Your task to perform on an android device: check out phone information Image 0: 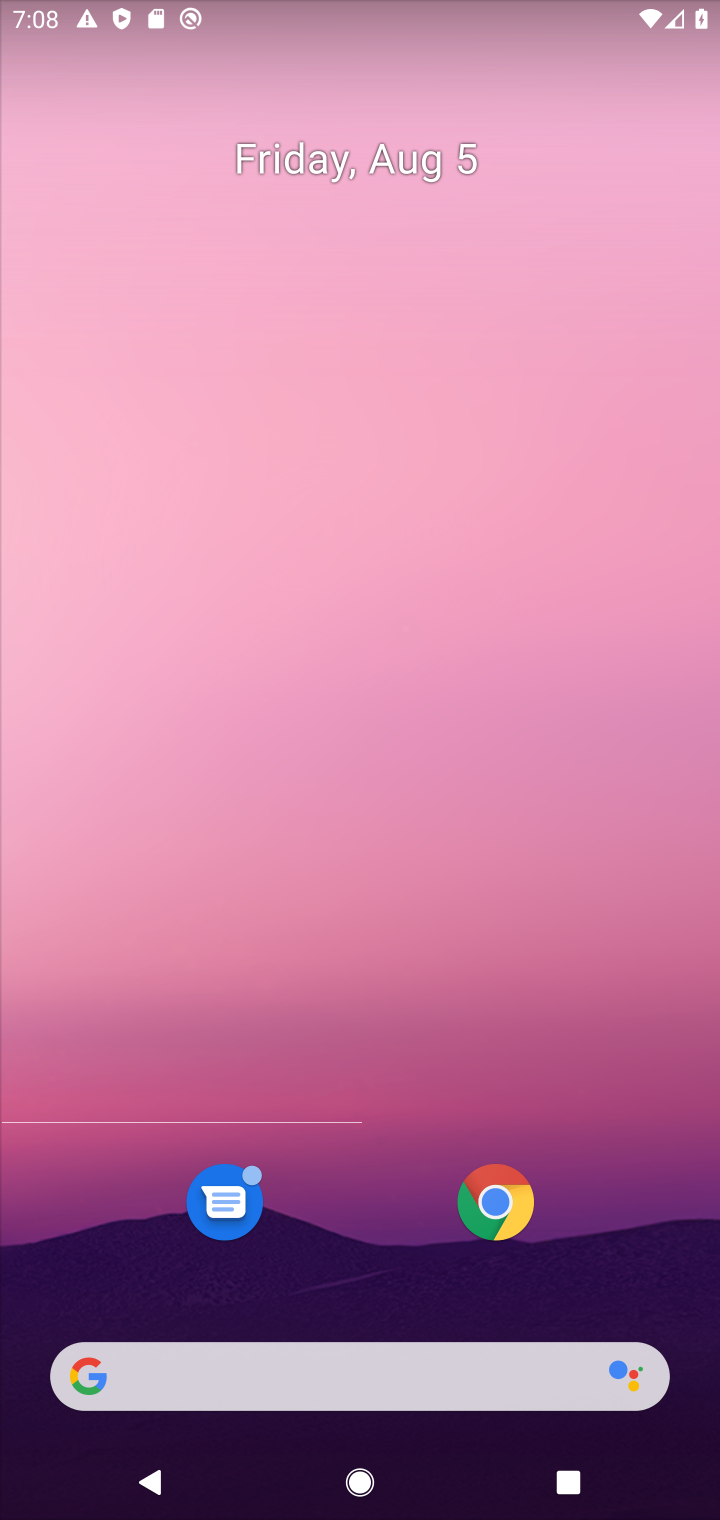
Step 0: click (398, 446)
Your task to perform on an android device: check out phone information Image 1: 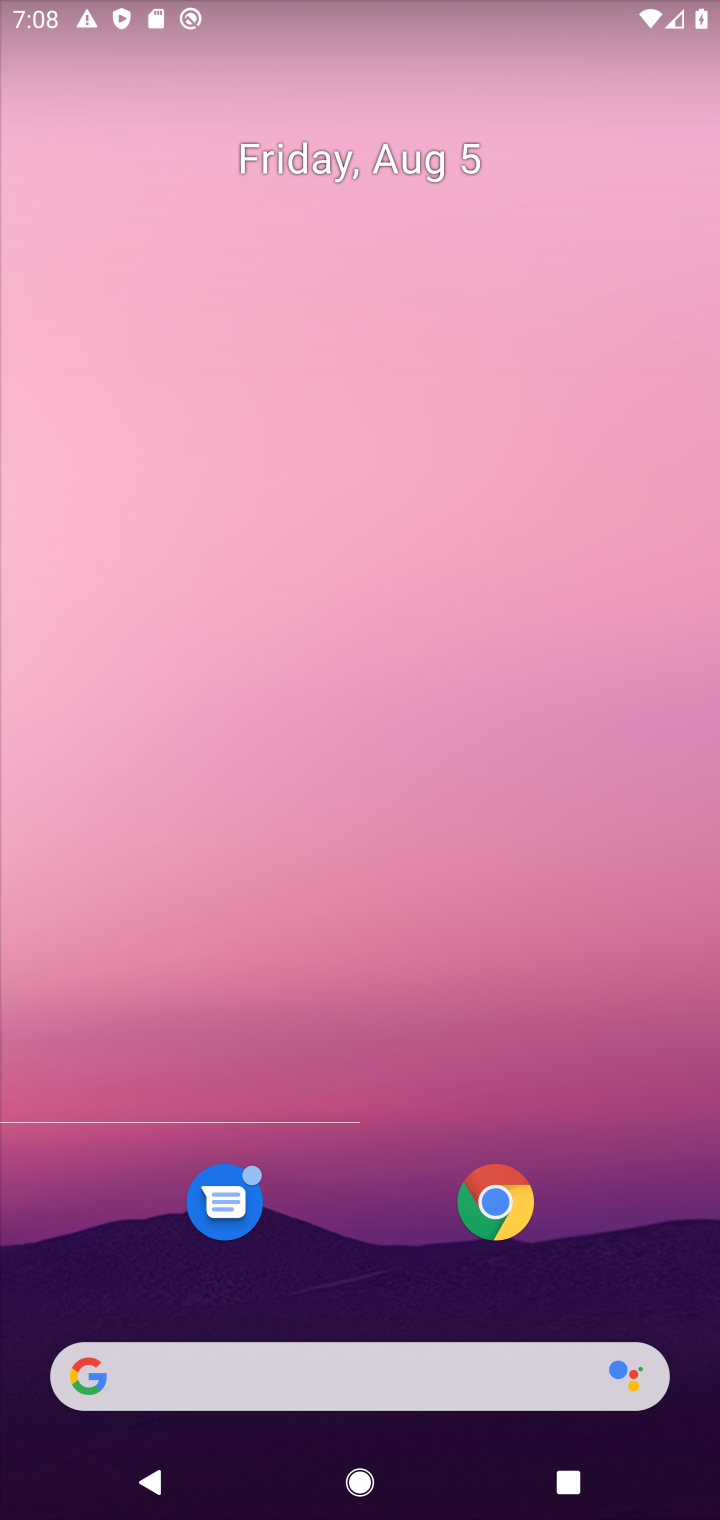
Step 1: click (457, 584)
Your task to perform on an android device: check out phone information Image 2: 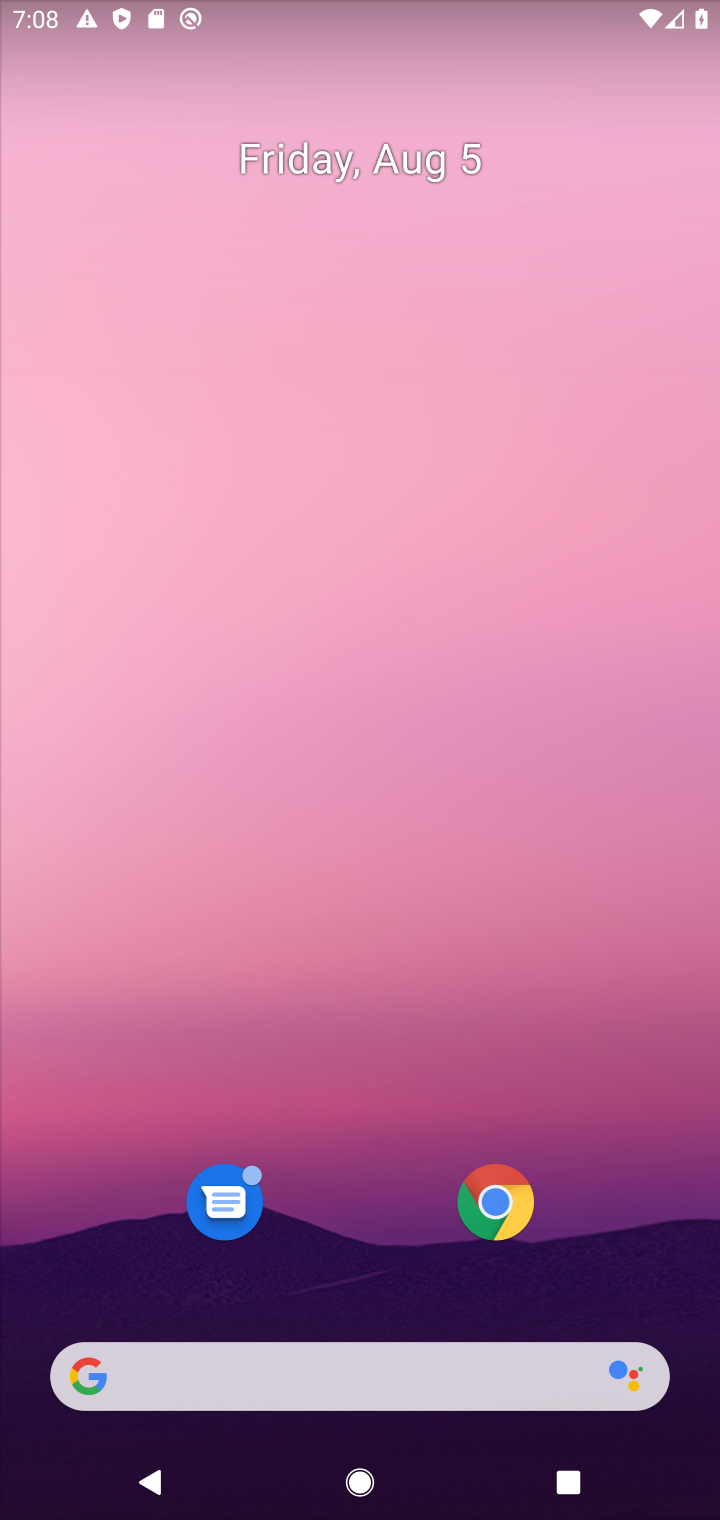
Step 2: drag from (388, 1215) to (454, 136)
Your task to perform on an android device: check out phone information Image 3: 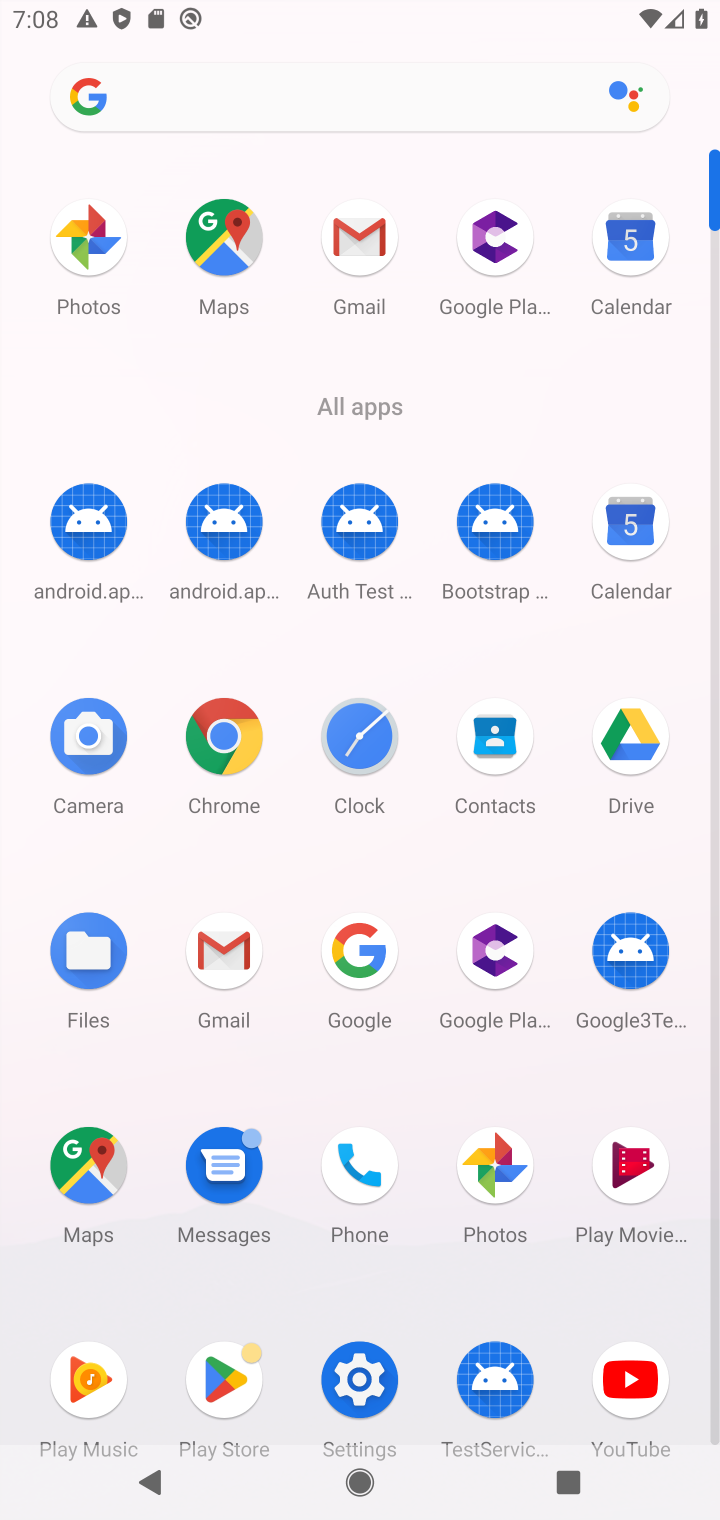
Step 3: drag from (400, 1162) to (408, 538)
Your task to perform on an android device: check out phone information Image 4: 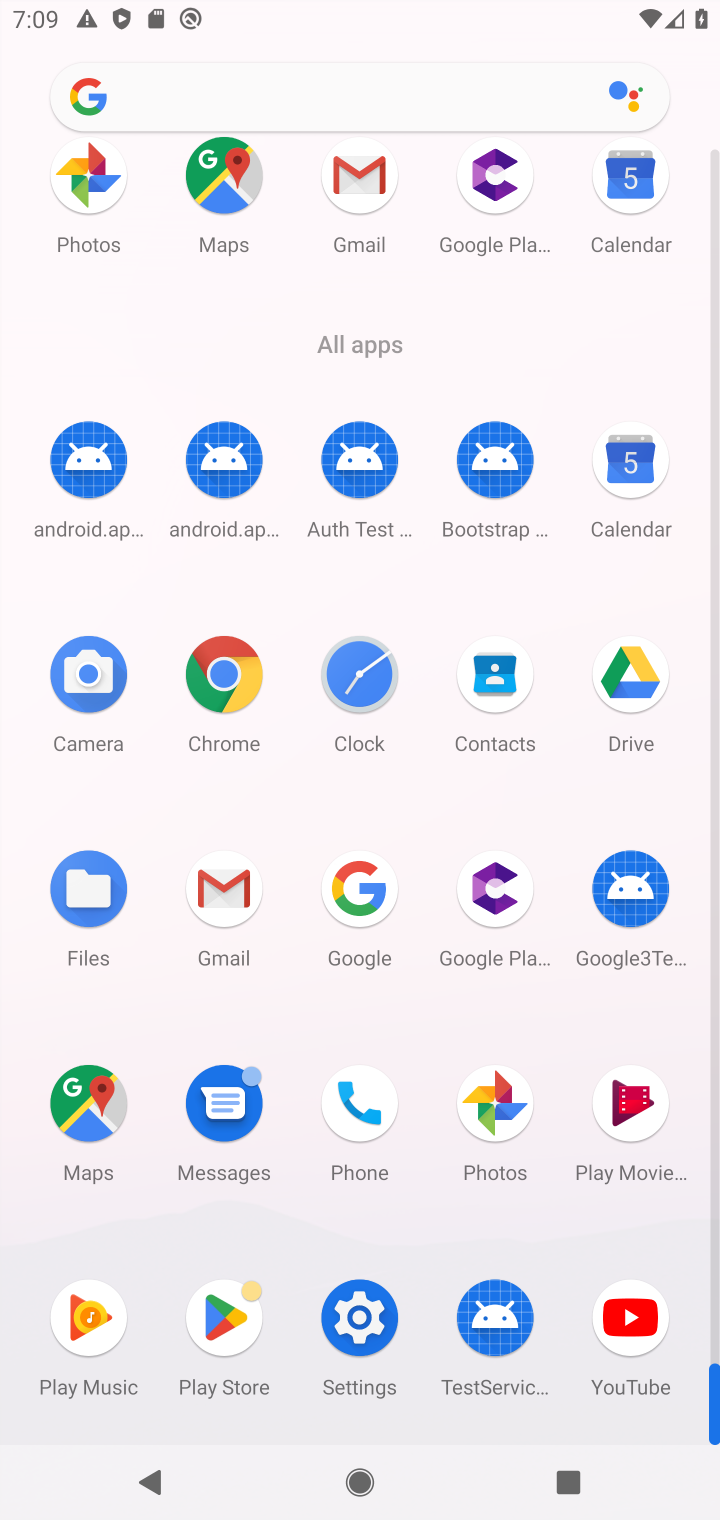
Step 4: click (342, 1349)
Your task to perform on an android device: check out phone information Image 5: 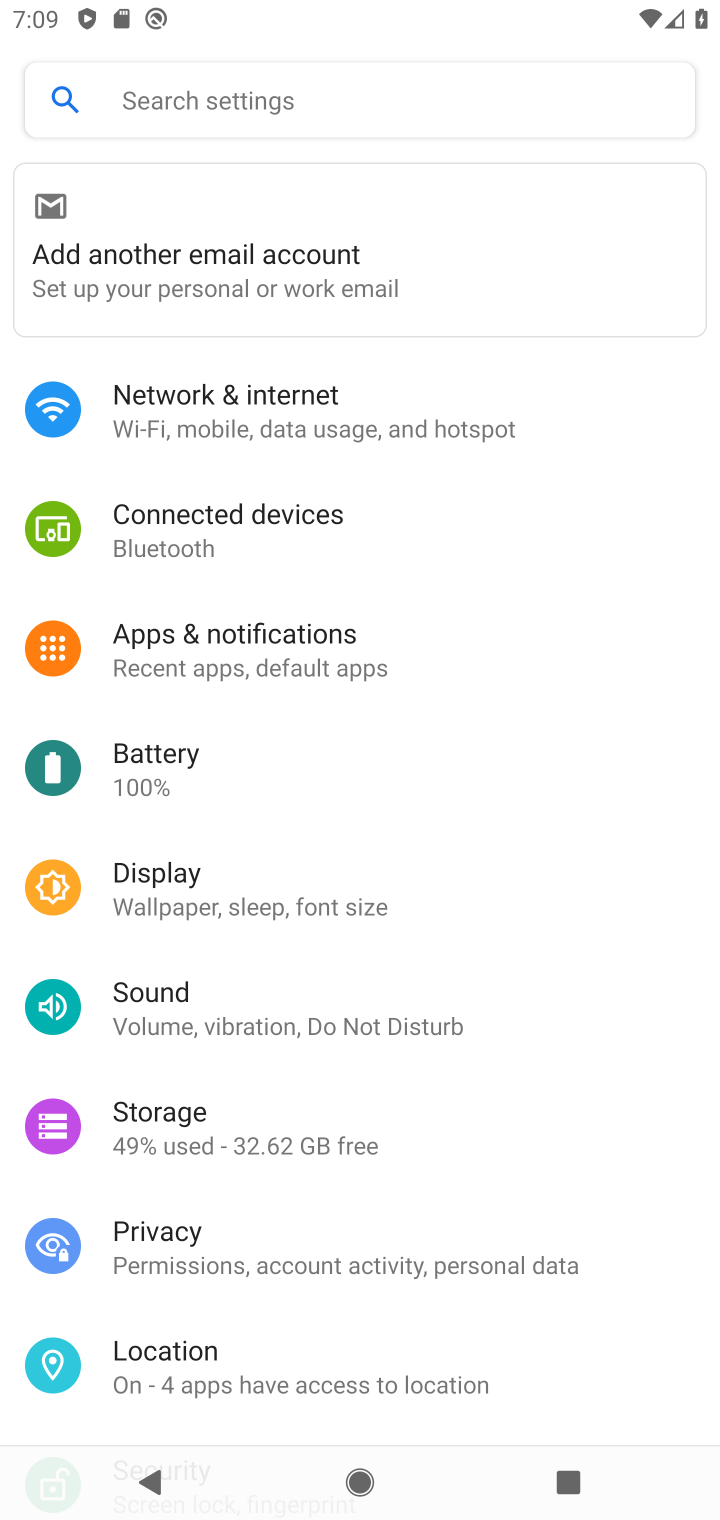
Step 5: drag from (304, 1110) to (690, 239)
Your task to perform on an android device: check out phone information Image 6: 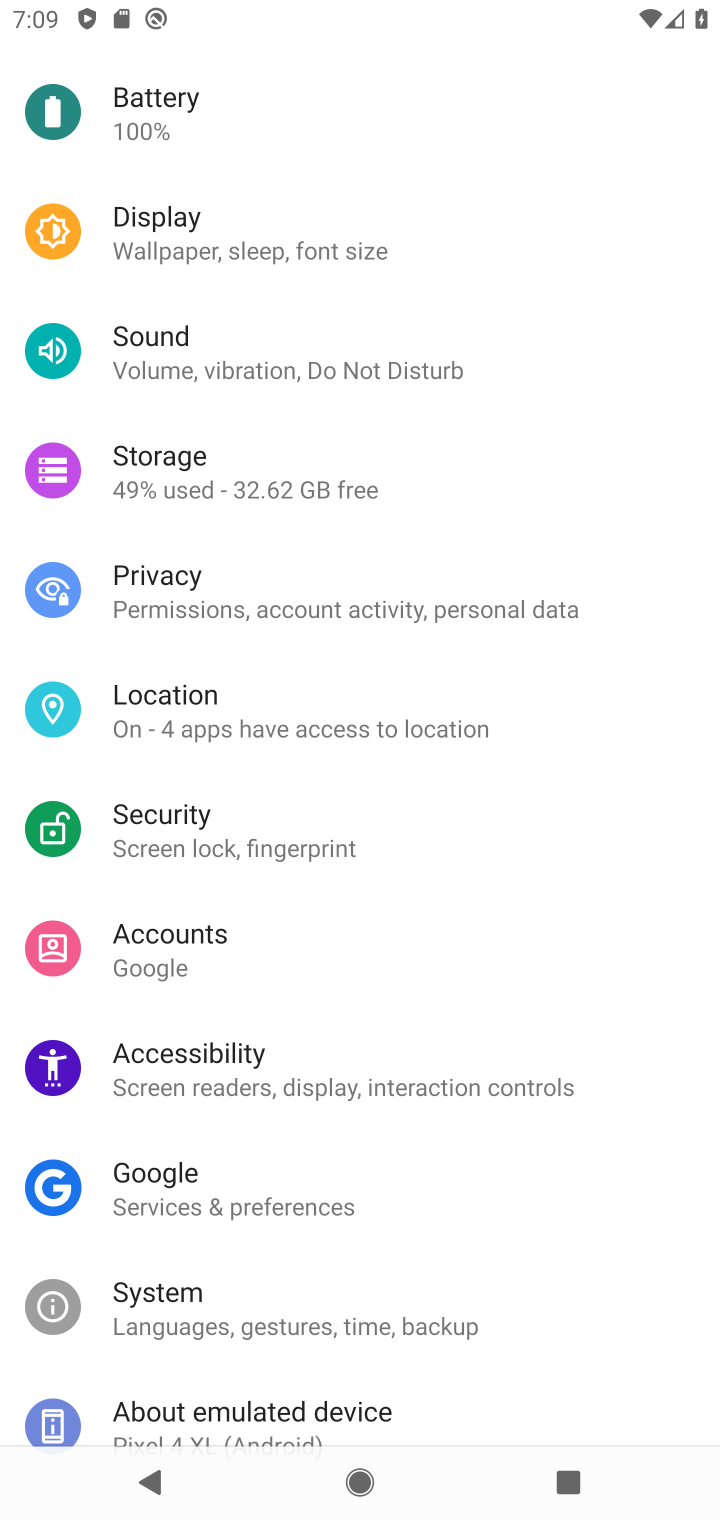
Step 6: drag from (348, 1236) to (382, 640)
Your task to perform on an android device: check out phone information Image 7: 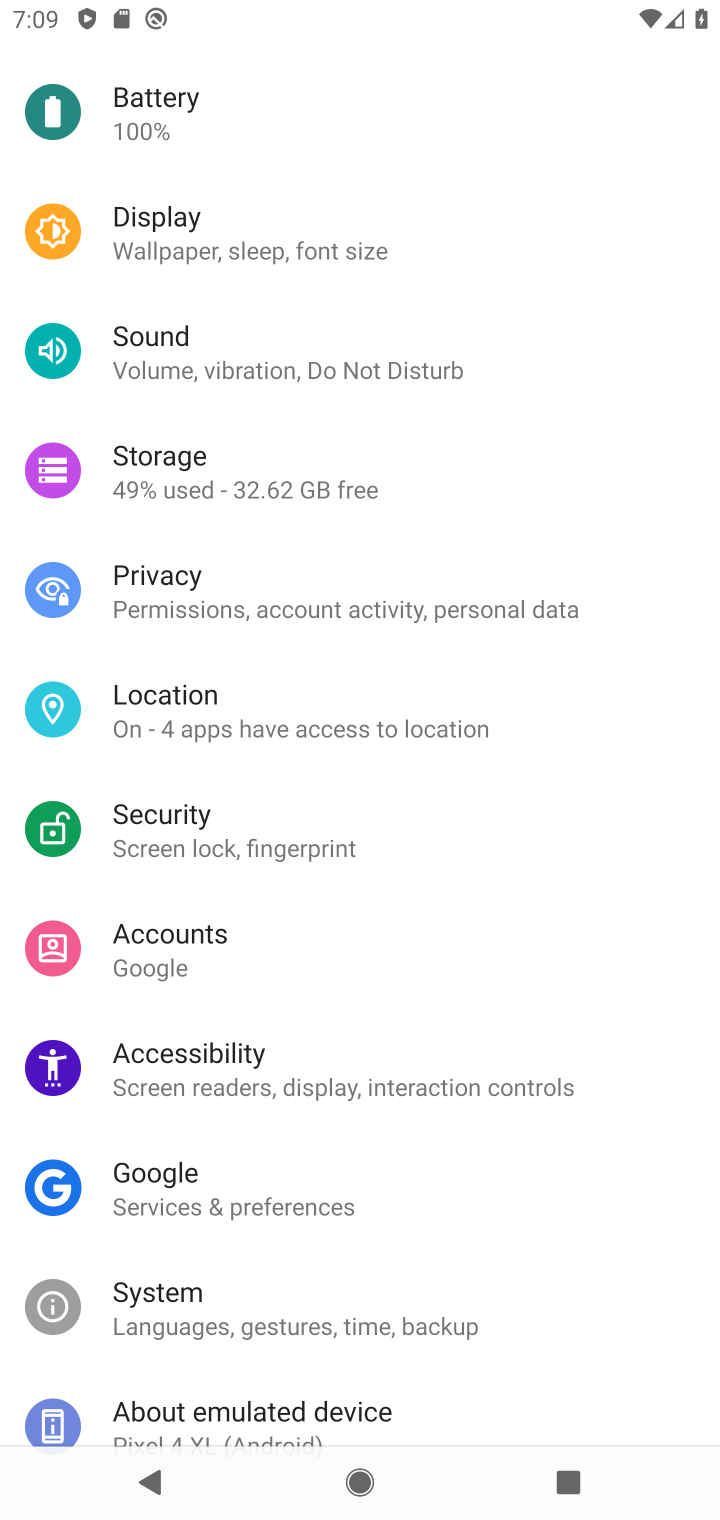
Step 7: drag from (404, 933) to (398, 293)
Your task to perform on an android device: check out phone information Image 8: 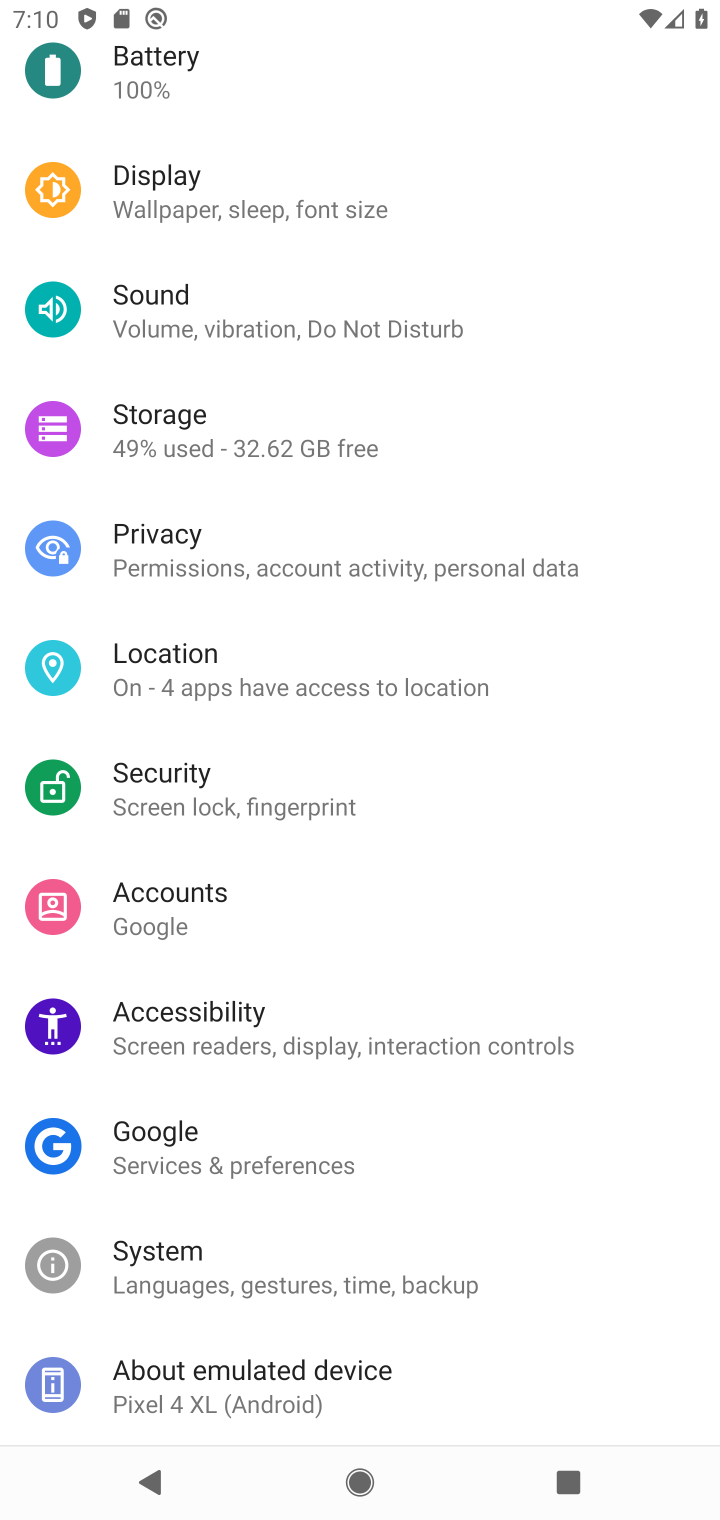
Step 8: drag from (292, 1299) to (340, 691)
Your task to perform on an android device: check out phone information Image 9: 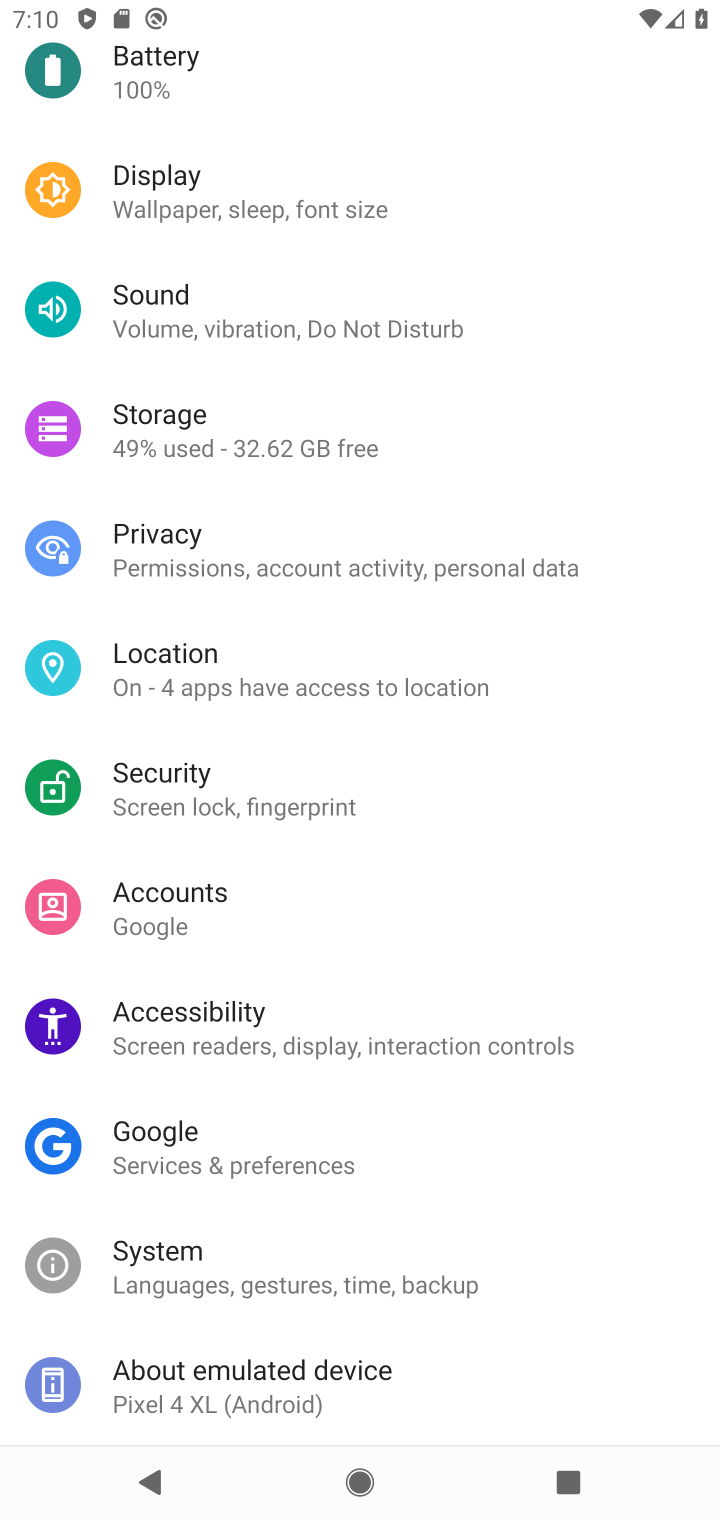
Step 9: click (237, 1405)
Your task to perform on an android device: check out phone information Image 10: 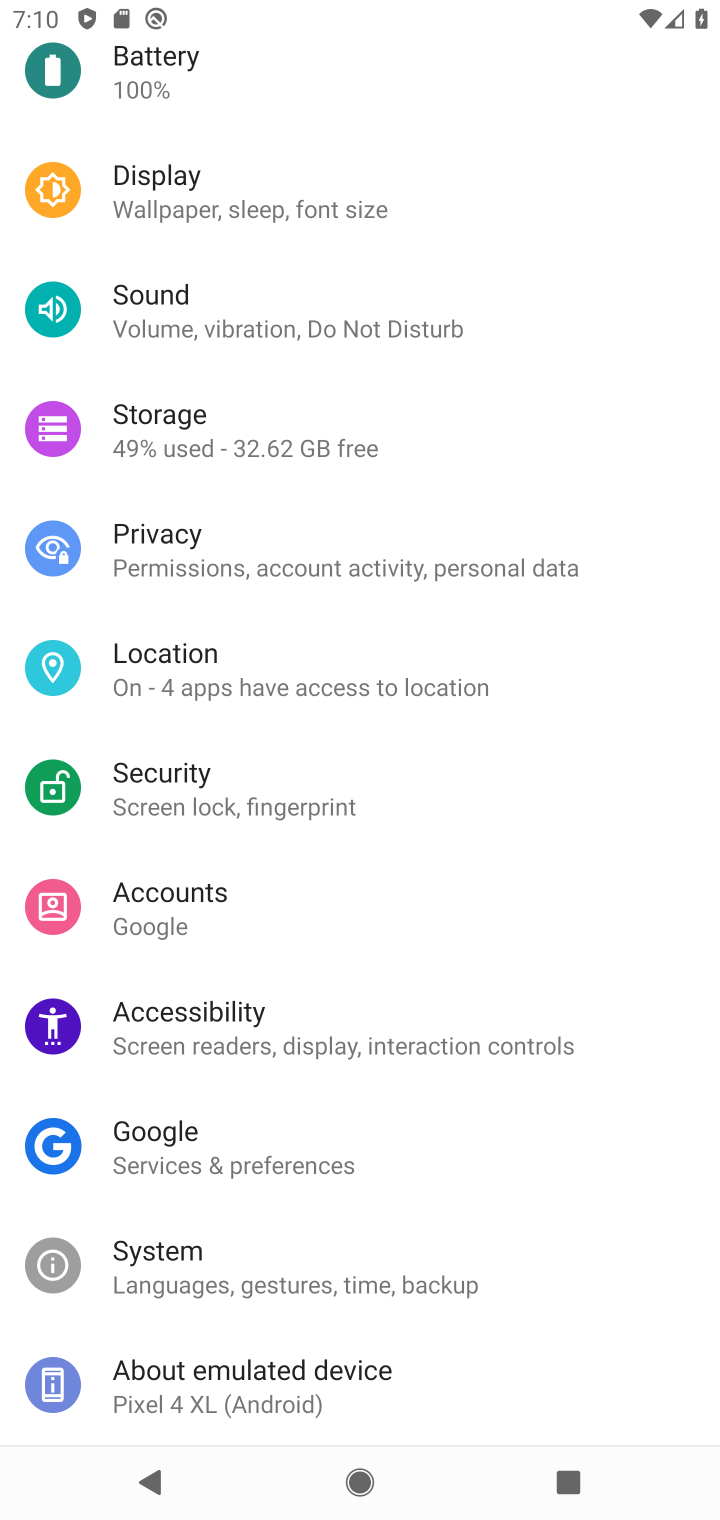
Step 10: task complete